Your task to perform on an android device: visit the assistant section in the google photos Image 0: 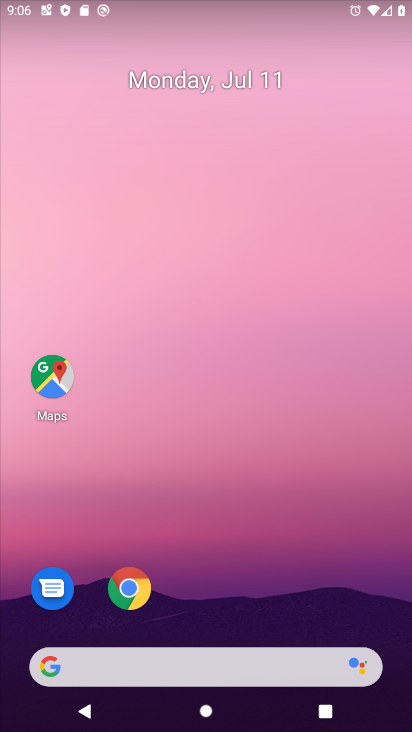
Step 0: drag from (186, 620) to (277, 4)
Your task to perform on an android device: visit the assistant section in the google photos Image 1: 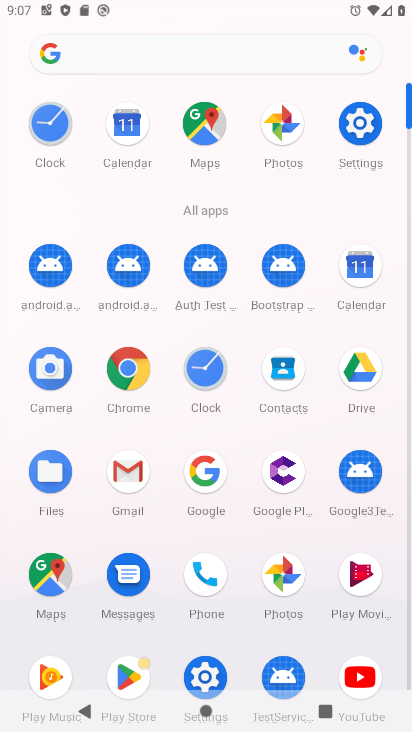
Step 1: click (281, 588)
Your task to perform on an android device: visit the assistant section in the google photos Image 2: 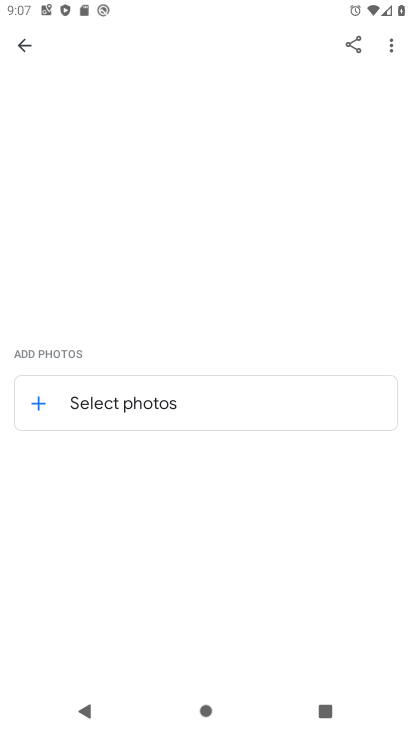
Step 2: click (12, 36)
Your task to perform on an android device: visit the assistant section in the google photos Image 3: 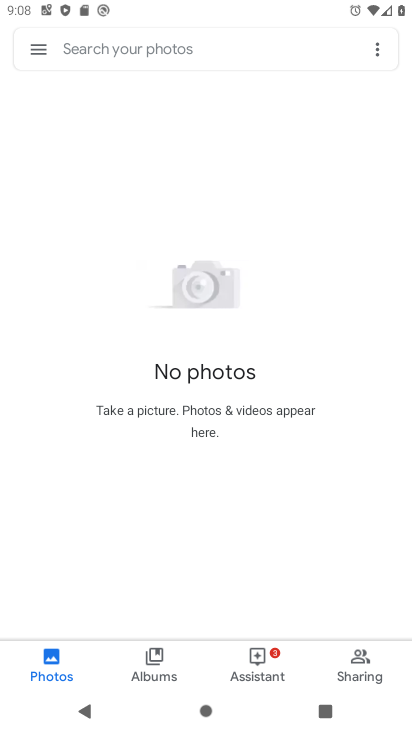
Step 3: click (245, 650)
Your task to perform on an android device: visit the assistant section in the google photos Image 4: 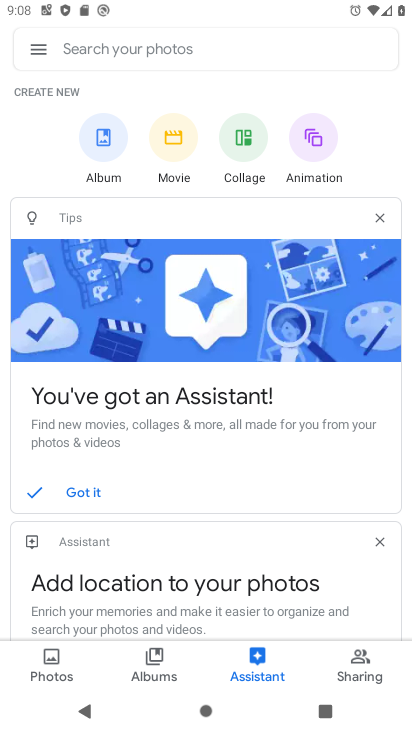
Step 4: task complete